Your task to perform on an android device: Do I have any events today? Image 0: 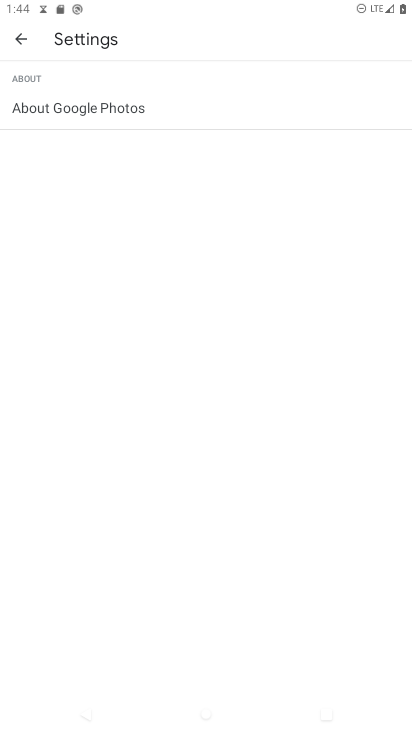
Step 0: press home button
Your task to perform on an android device: Do I have any events today? Image 1: 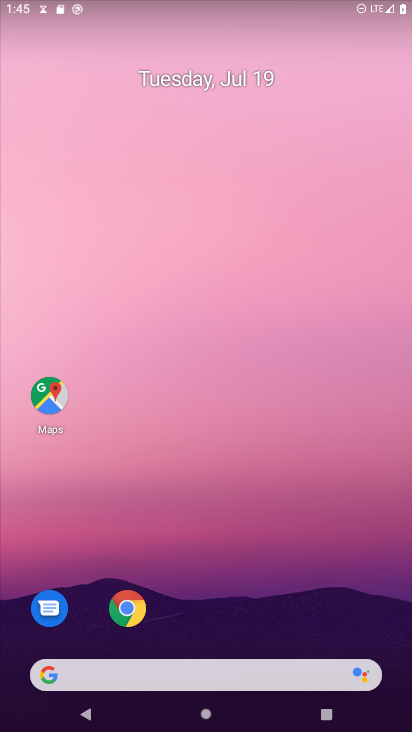
Step 1: drag from (155, 625) to (385, 469)
Your task to perform on an android device: Do I have any events today? Image 2: 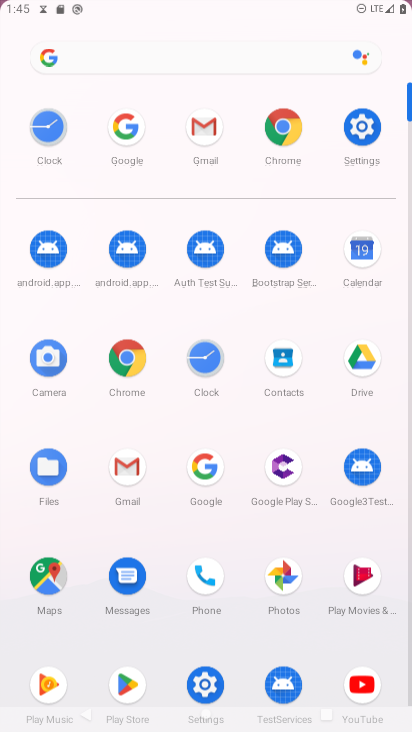
Step 2: click (366, 241)
Your task to perform on an android device: Do I have any events today? Image 3: 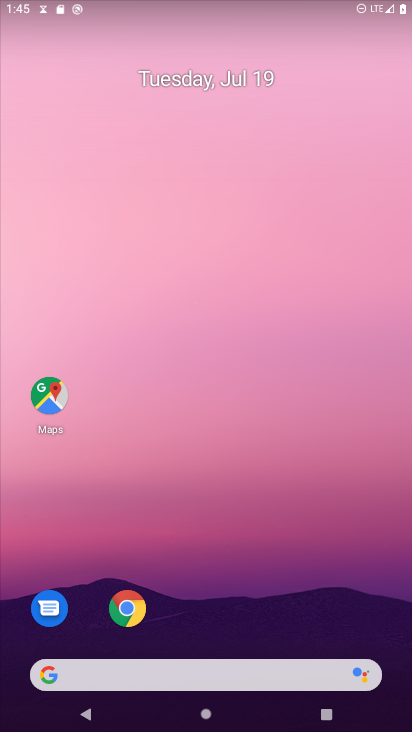
Step 3: drag from (279, 650) to (341, 11)
Your task to perform on an android device: Do I have any events today? Image 4: 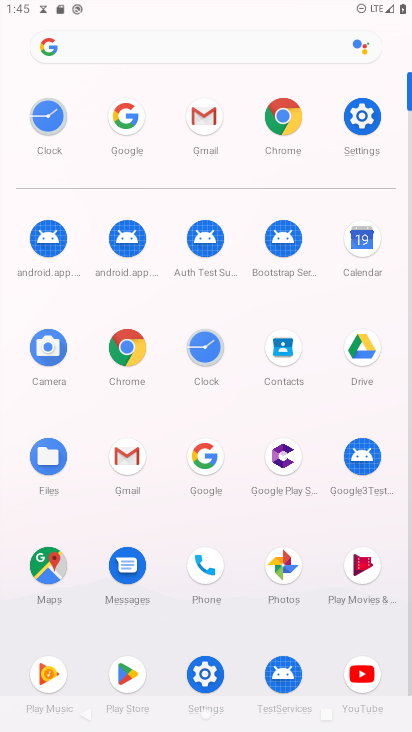
Step 4: click (360, 241)
Your task to perform on an android device: Do I have any events today? Image 5: 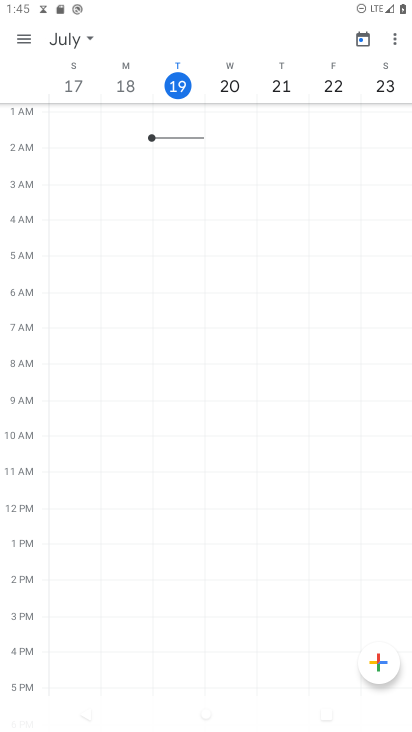
Step 5: click (87, 37)
Your task to perform on an android device: Do I have any events today? Image 6: 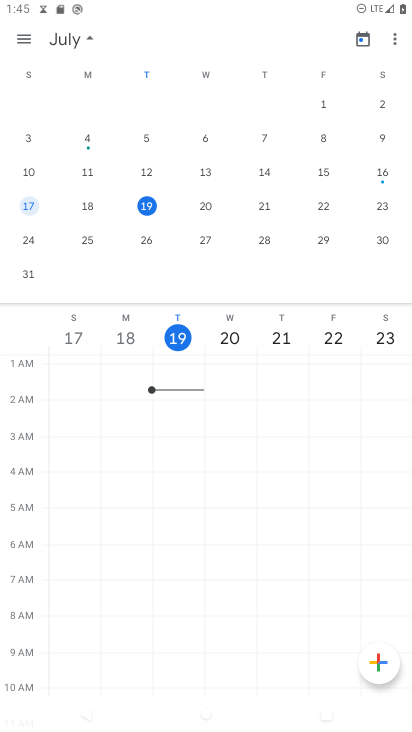
Step 6: click (226, 335)
Your task to perform on an android device: Do I have any events today? Image 7: 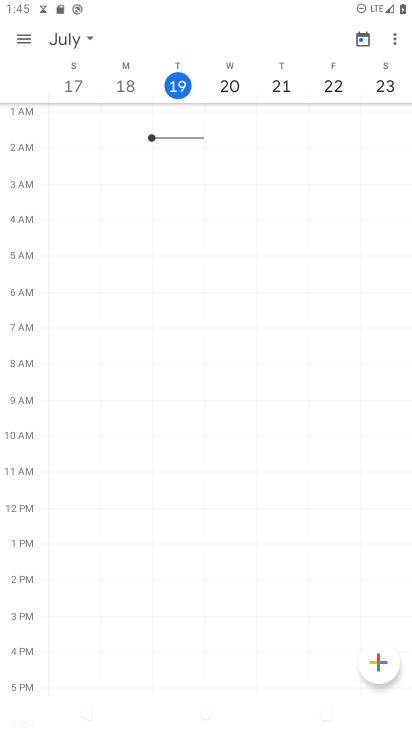
Step 7: click (173, 80)
Your task to perform on an android device: Do I have any events today? Image 8: 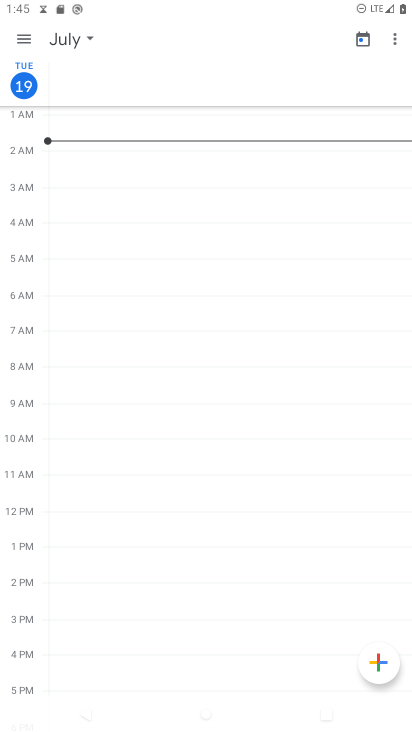
Step 8: task complete